Your task to perform on an android device: Show me popular videos on Youtube Image 0: 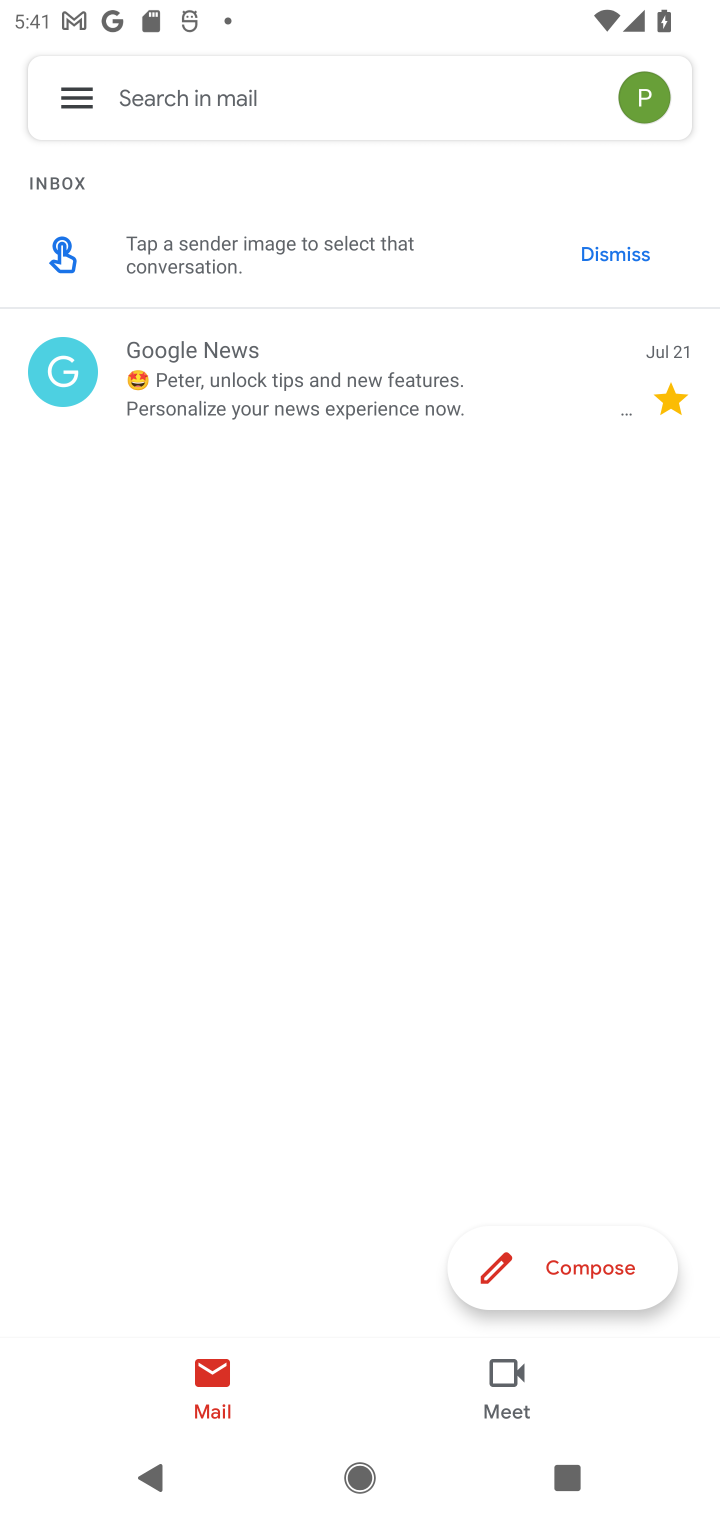
Step 0: press home button
Your task to perform on an android device: Show me popular videos on Youtube Image 1: 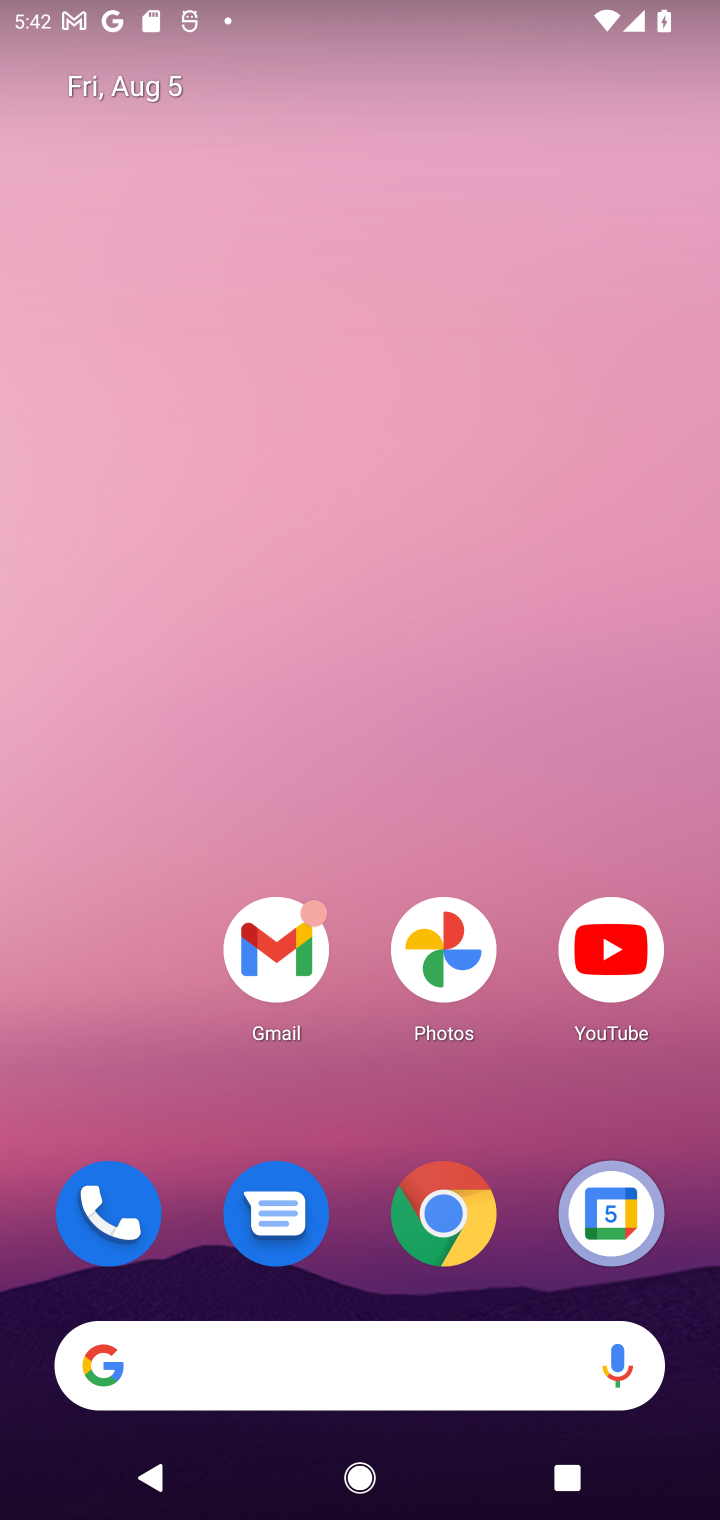
Step 1: click (629, 978)
Your task to perform on an android device: Show me popular videos on Youtube Image 2: 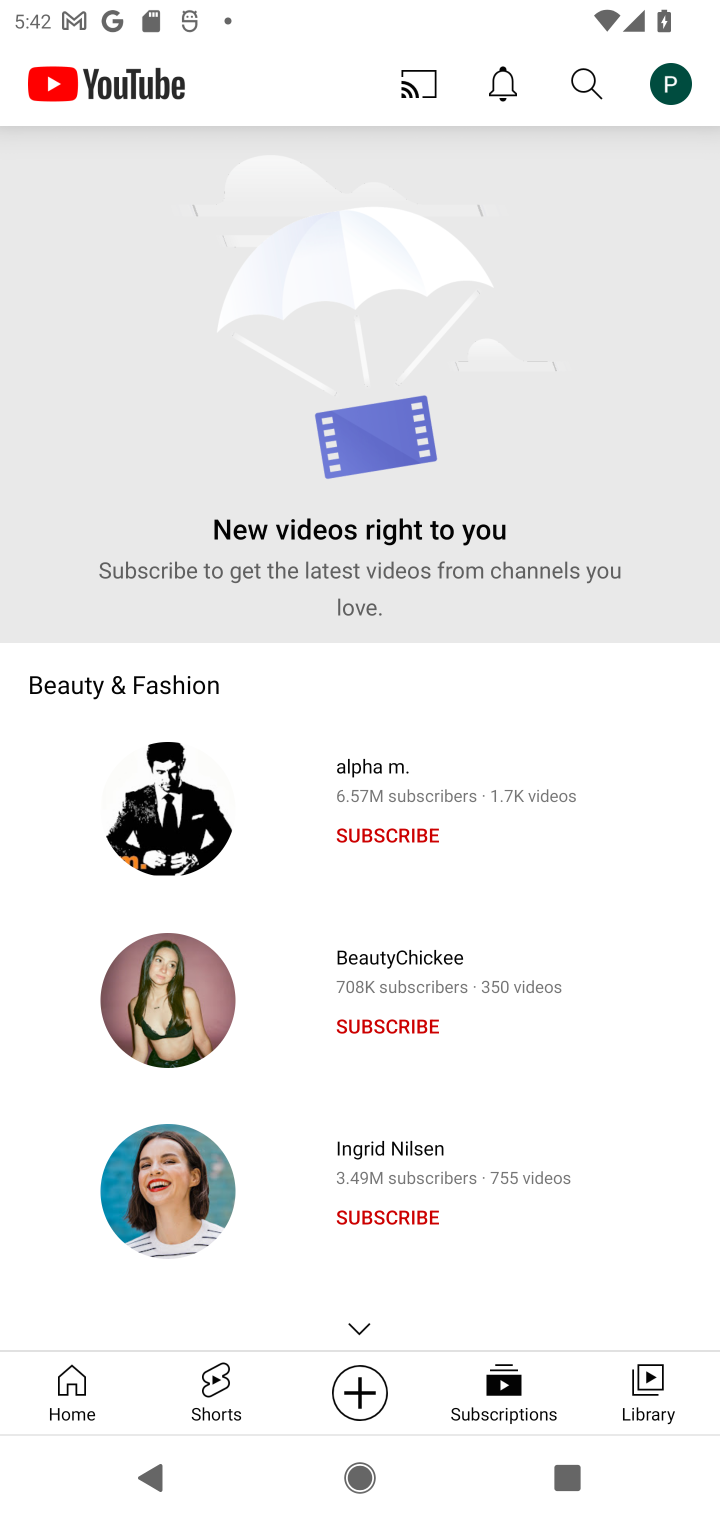
Step 2: task complete